Your task to perform on an android device: change timer sound Image 0: 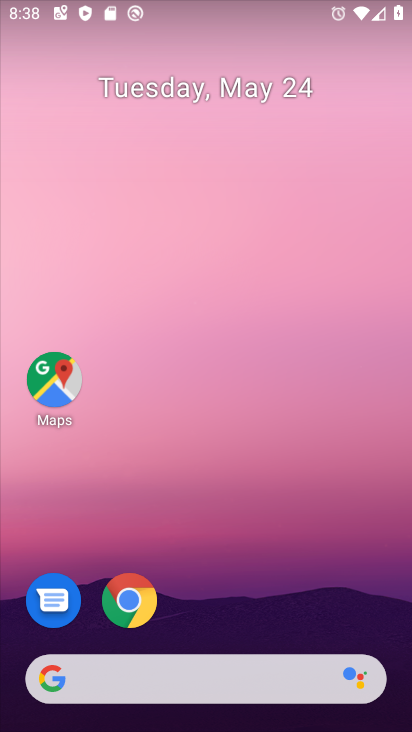
Step 0: drag from (200, 720) to (200, 210)
Your task to perform on an android device: change timer sound Image 1: 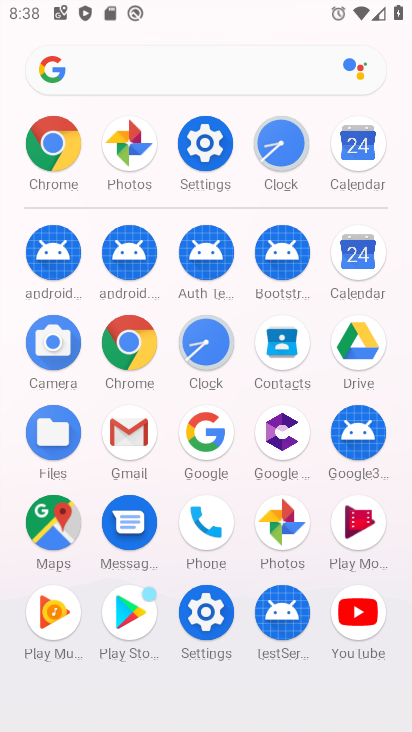
Step 1: click (201, 345)
Your task to perform on an android device: change timer sound Image 2: 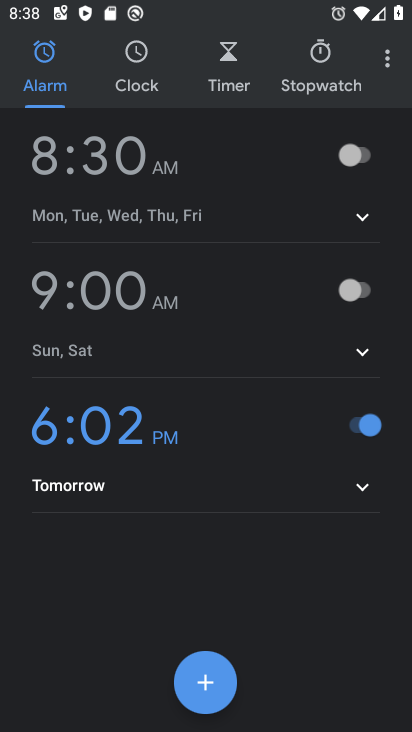
Step 2: click (391, 65)
Your task to perform on an android device: change timer sound Image 3: 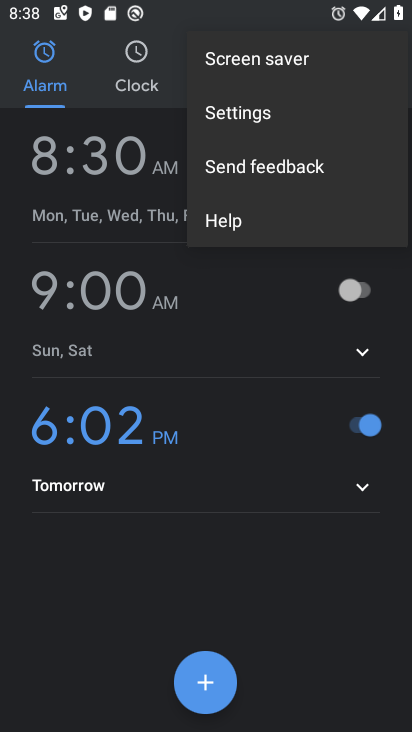
Step 3: click (245, 112)
Your task to perform on an android device: change timer sound Image 4: 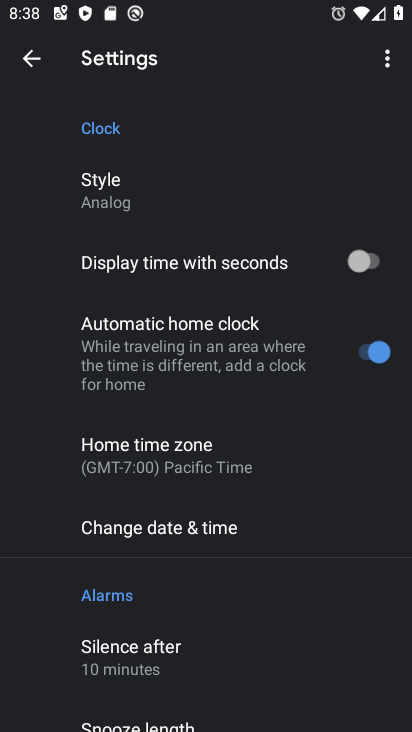
Step 4: drag from (121, 617) to (124, 355)
Your task to perform on an android device: change timer sound Image 5: 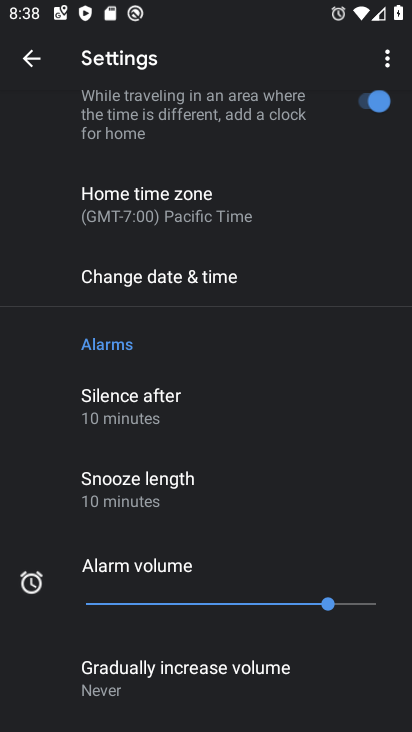
Step 5: drag from (167, 688) to (139, 321)
Your task to perform on an android device: change timer sound Image 6: 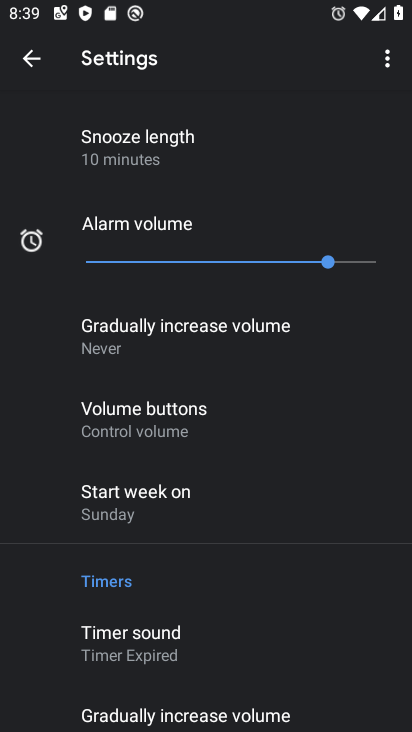
Step 6: click (152, 648)
Your task to perform on an android device: change timer sound Image 7: 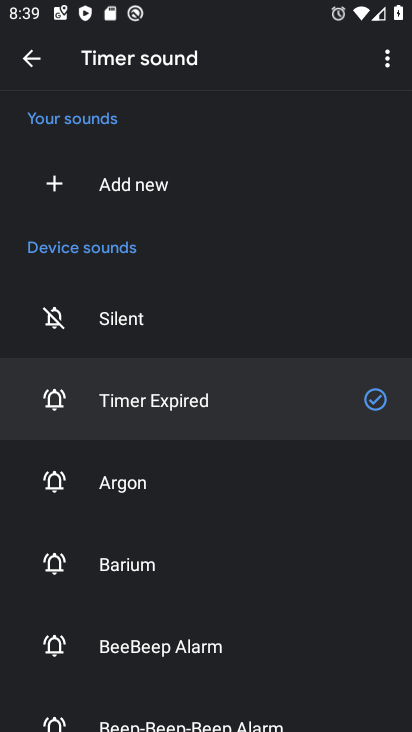
Step 7: click (128, 653)
Your task to perform on an android device: change timer sound Image 8: 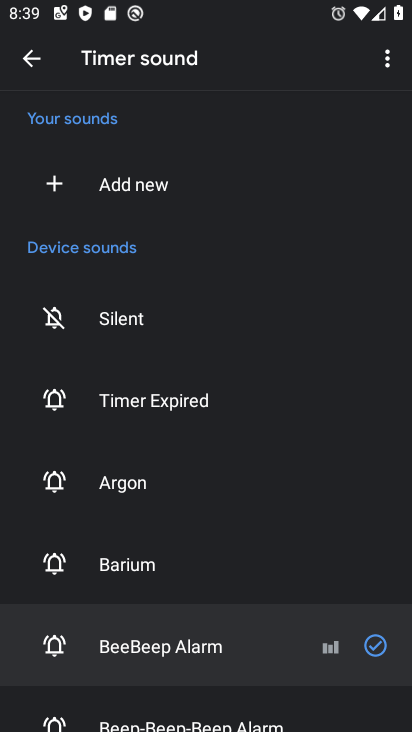
Step 8: task complete